Your task to perform on an android device: toggle pop-ups in chrome Image 0: 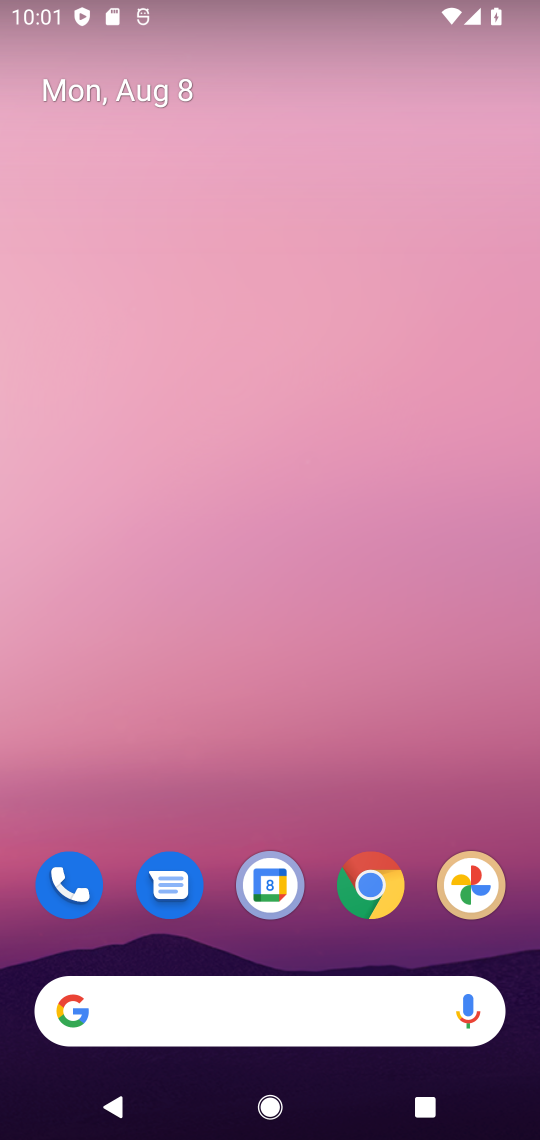
Step 0: click (364, 878)
Your task to perform on an android device: toggle pop-ups in chrome Image 1: 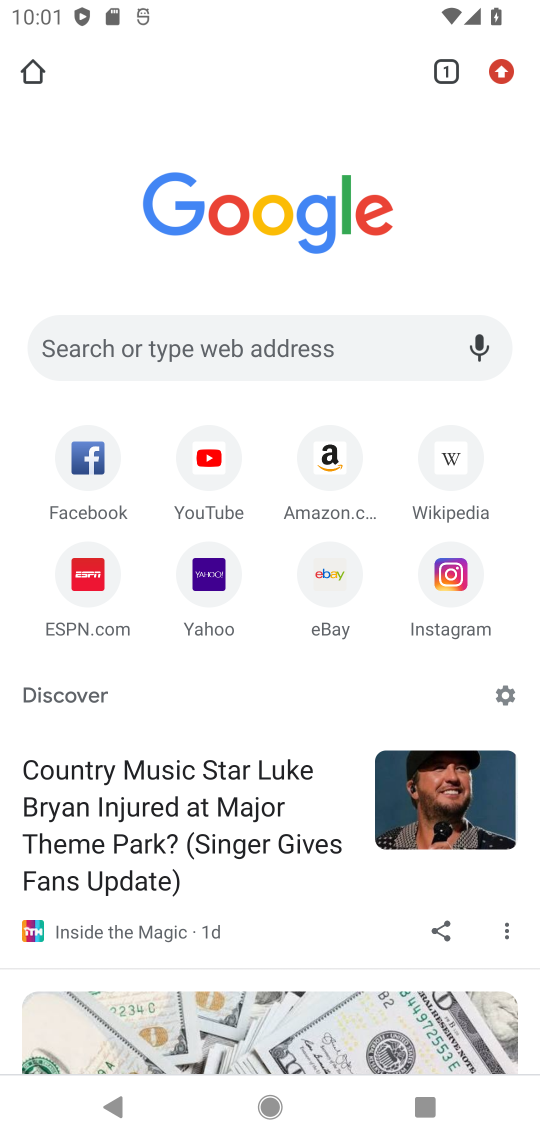
Step 1: click (503, 54)
Your task to perform on an android device: toggle pop-ups in chrome Image 2: 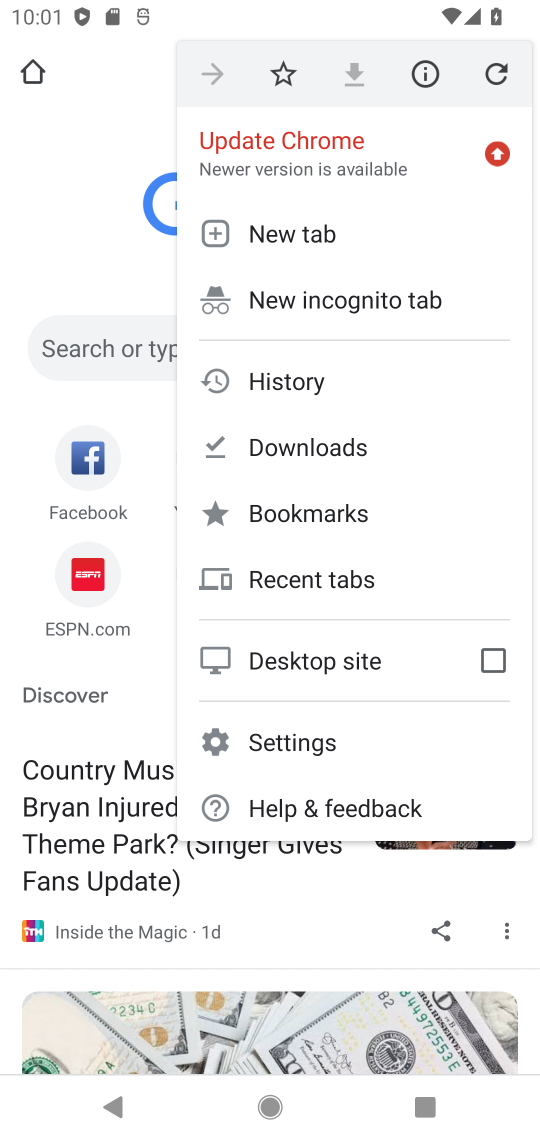
Step 2: click (313, 742)
Your task to perform on an android device: toggle pop-ups in chrome Image 3: 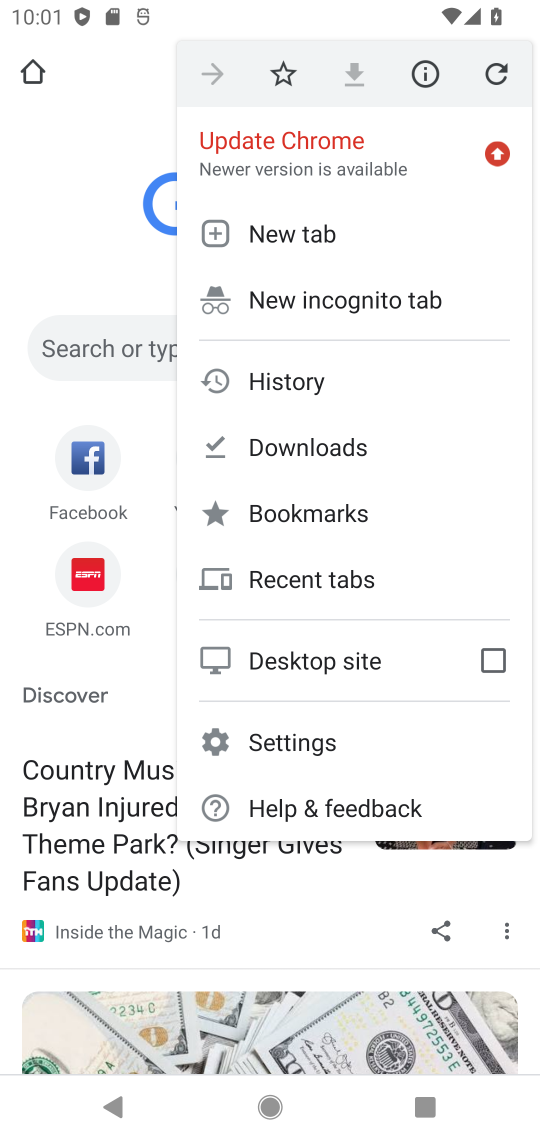
Step 3: click (313, 742)
Your task to perform on an android device: toggle pop-ups in chrome Image 4: 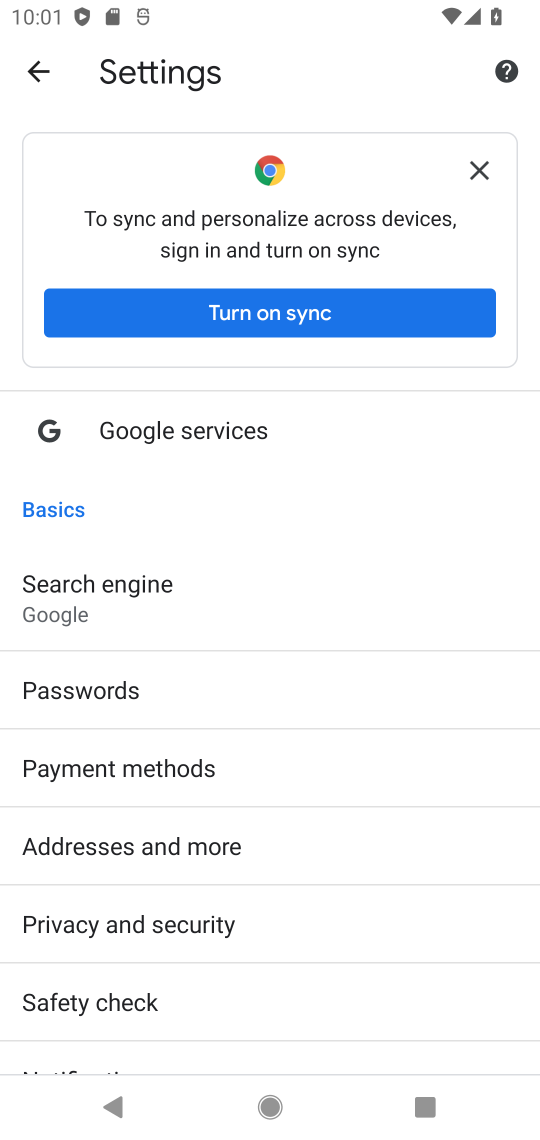
Step 4: drag from (308, 976) to (222, 267)
Your task to perform on an android device: toggle pop-ups in chrome Image 5: 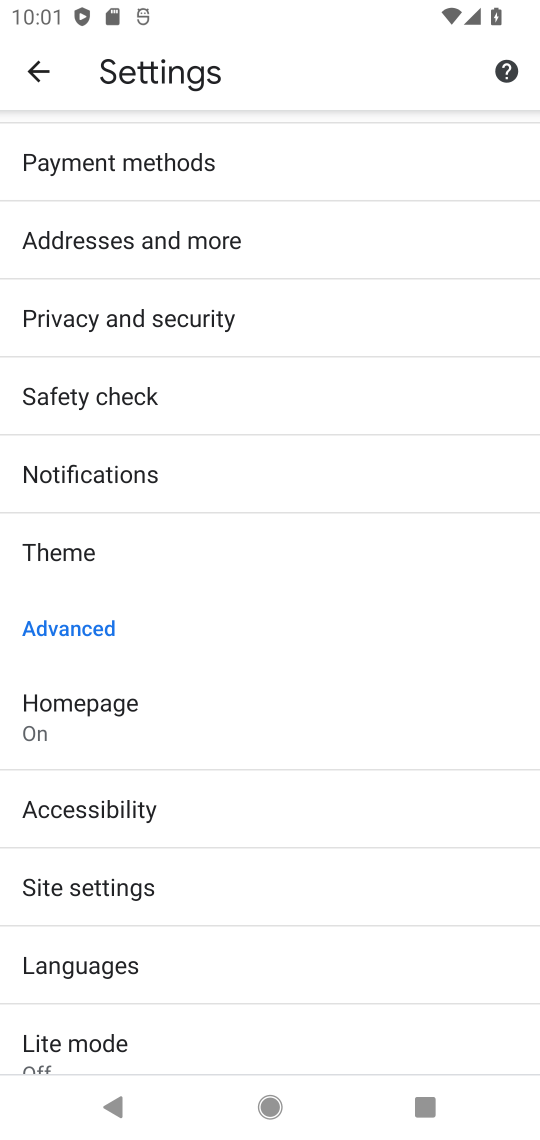
Step 5: click (105, 909)
Your task to perform on an android device: toggle pop-ups in chrome Image 6: 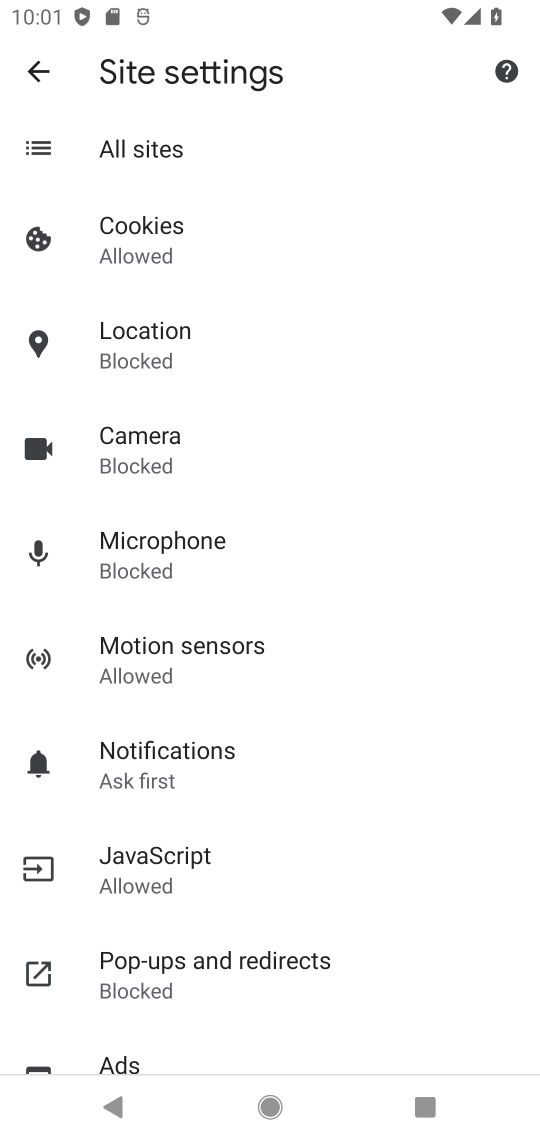
Step 6: click (238, 975)
Your task to perform on an android device: toggle pop-ups in chrome Image 7: 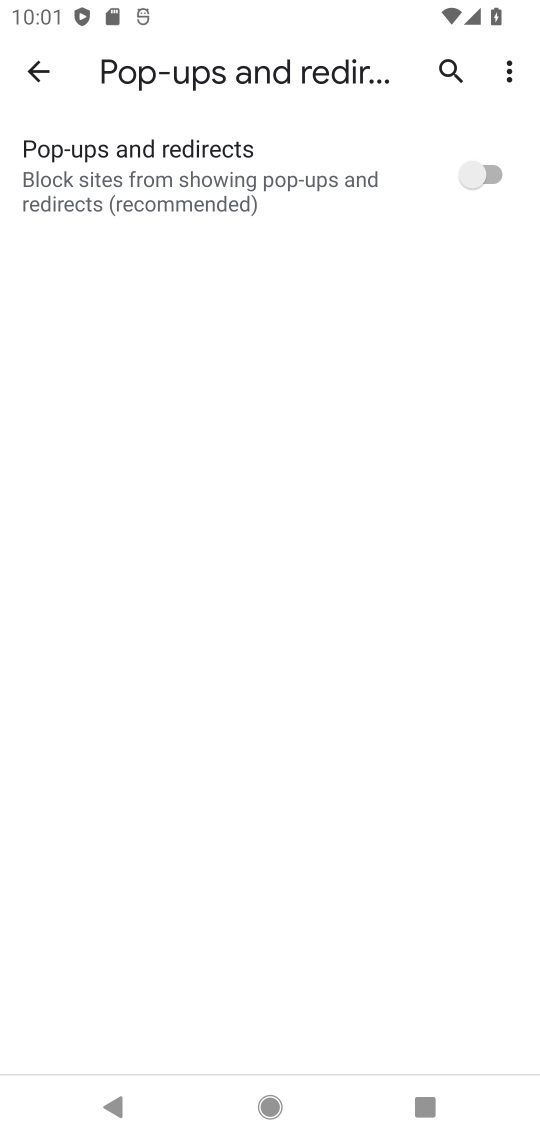
Step 7: click (487, 162)
Your task to perform on an android device: toggle pop-ups in chrome Image 8: 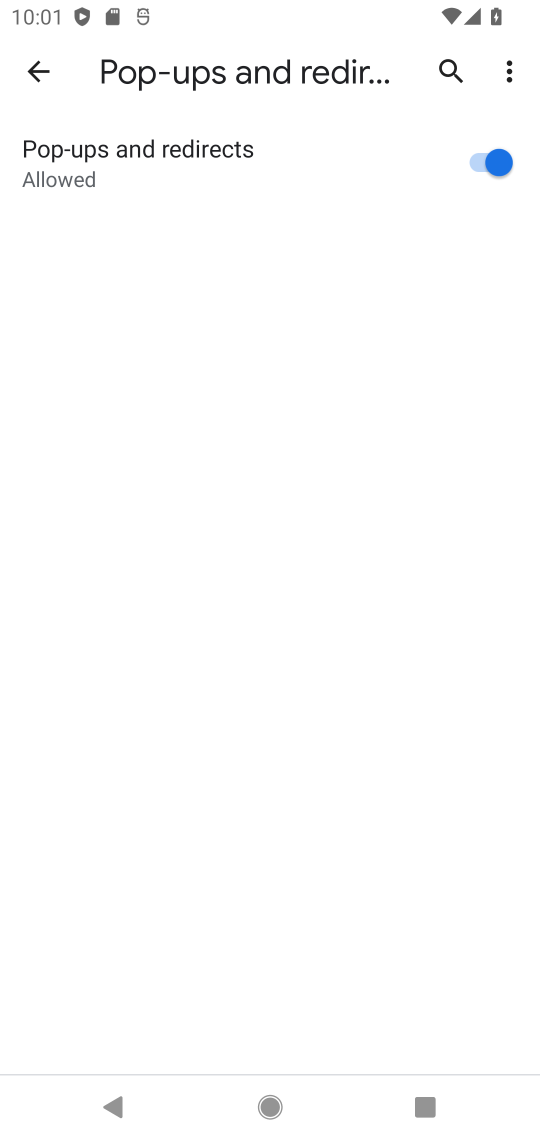
Step 8: task complete